Your task to perform on an android device: manage bookmarks in the chrome app Image 0: 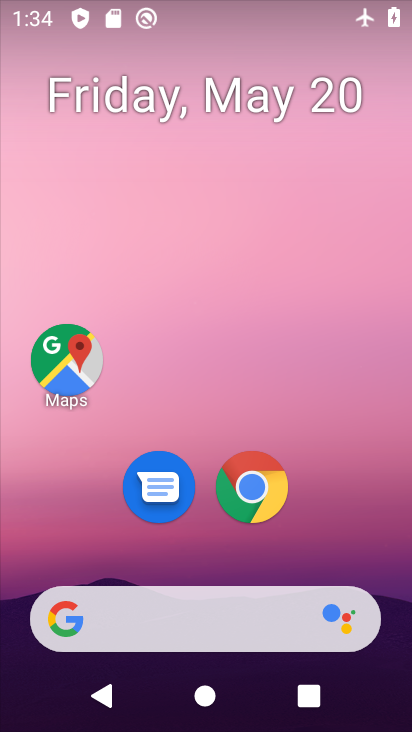
Step 0: drag from (355, 527) to (7, 532)
Your task to perform on an android device: manage bookmarks in the chrome app Image 1: 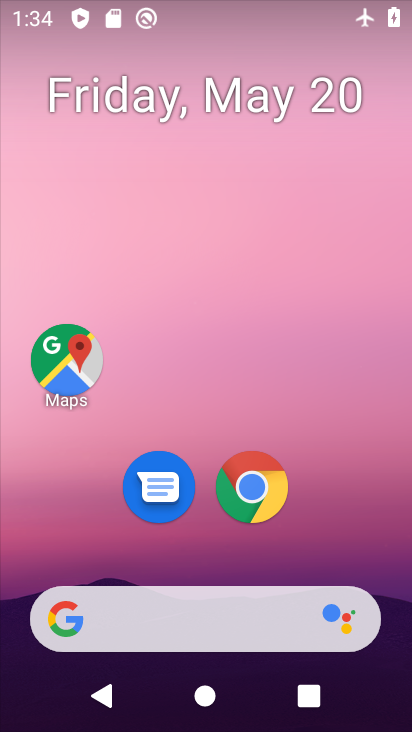
Step 1: click (247, 499)
Your task to perform on an android device: manage bookmarks in the chrome app Image 2: 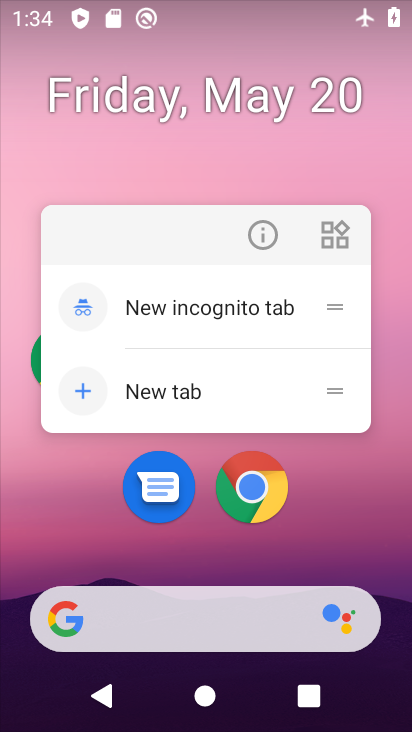
Step 2: click (247, 499)
Your task to perform on an android device: manage bookmarks in the chrome app Image 3: 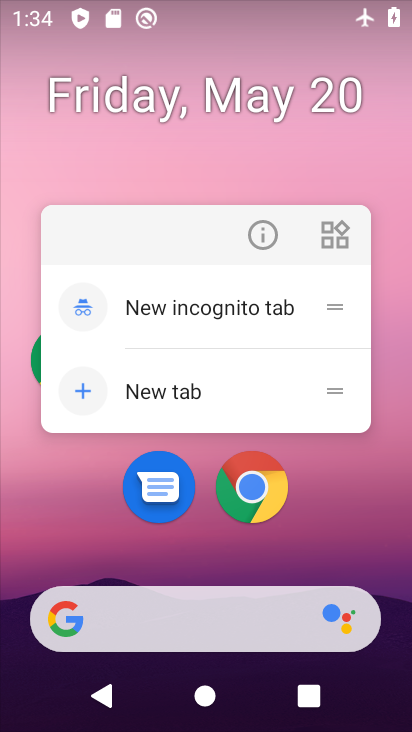
Step 3: click (250, 494)
Your task to perform on an android device: manage bookmarks in the chrome app Image 4: 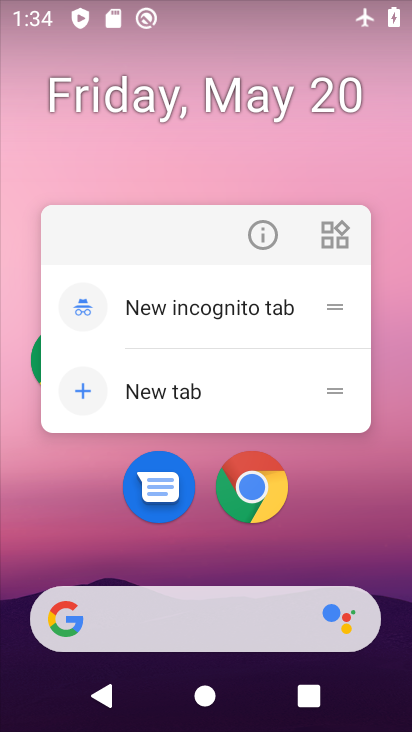
Step 4: click (249, 494)
Your task to perform on an android device: manage bookmarks in the chrome app Image 5: 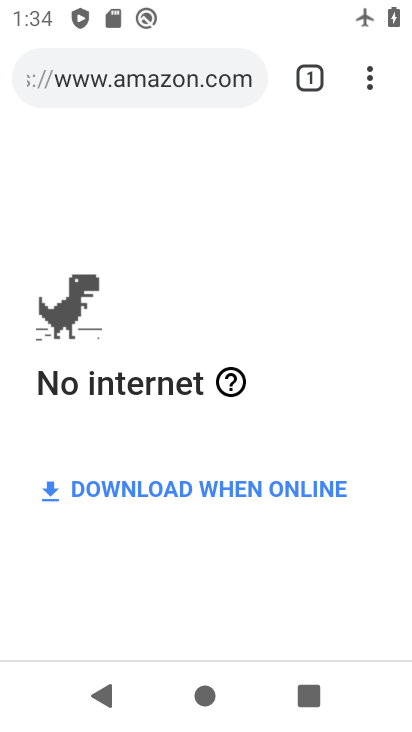
Step 5: task complete